Your task to perform on an android device: open app "AliExpress" (install if not already installed) and enter user name: "orangutan@inbox.com" and password: "Lyons" Image 0: 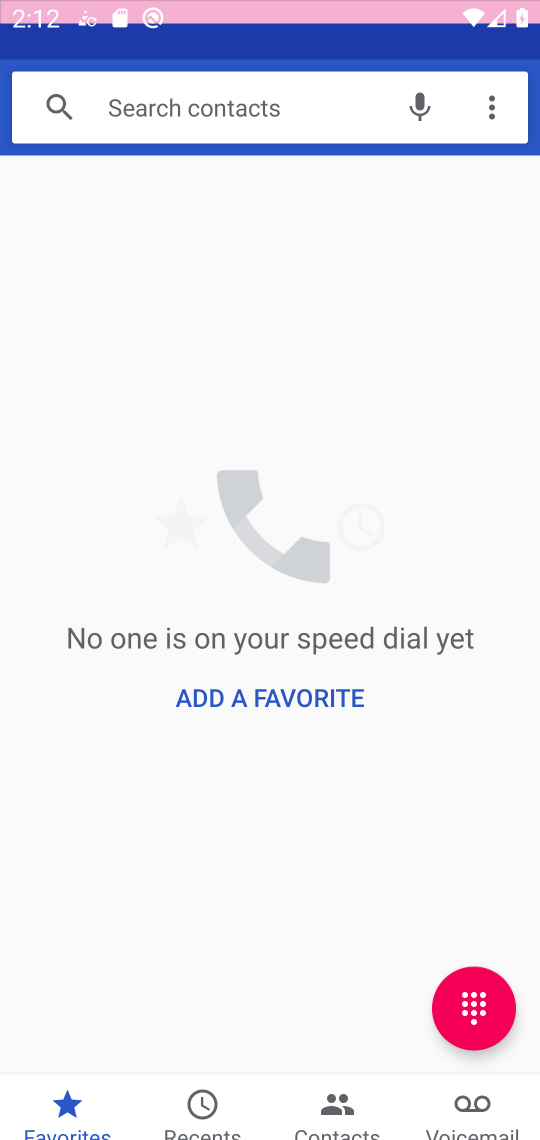
Step 0: press home button
Your task to perform on an android device: open app "AliExpress" (install if not already installed) and enter user name: "orangutan@inbox.com" and password: "Lyons" Image 1: 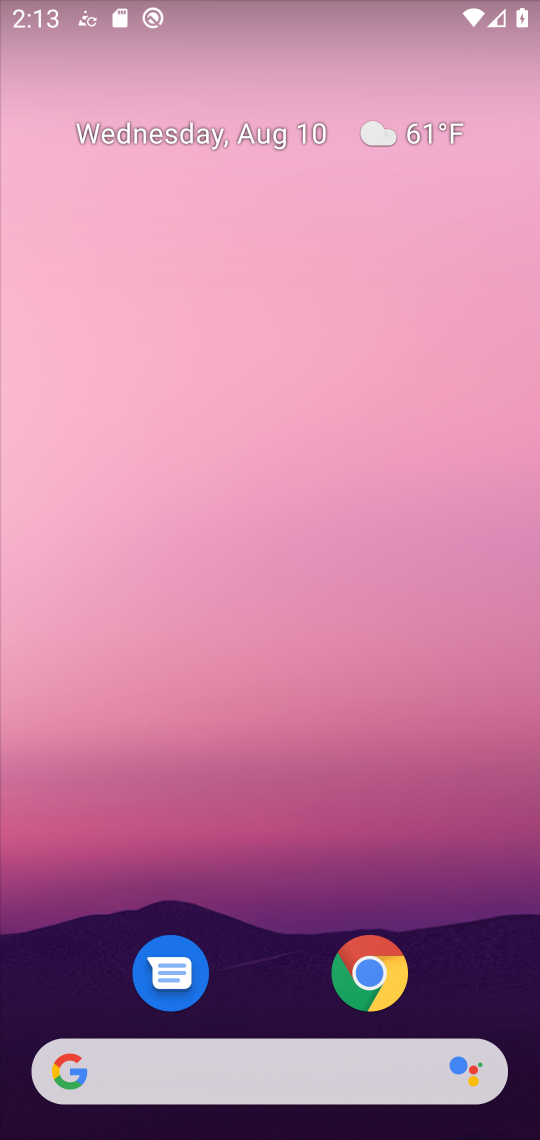
Step 1: drag from (333, 935) to (305, 444)
Your task to perform on an android device: open app "AliExpress" (install if not already installed) and enter user name: "orangutan@inbox.com" and password: "Lyons" Image 2: 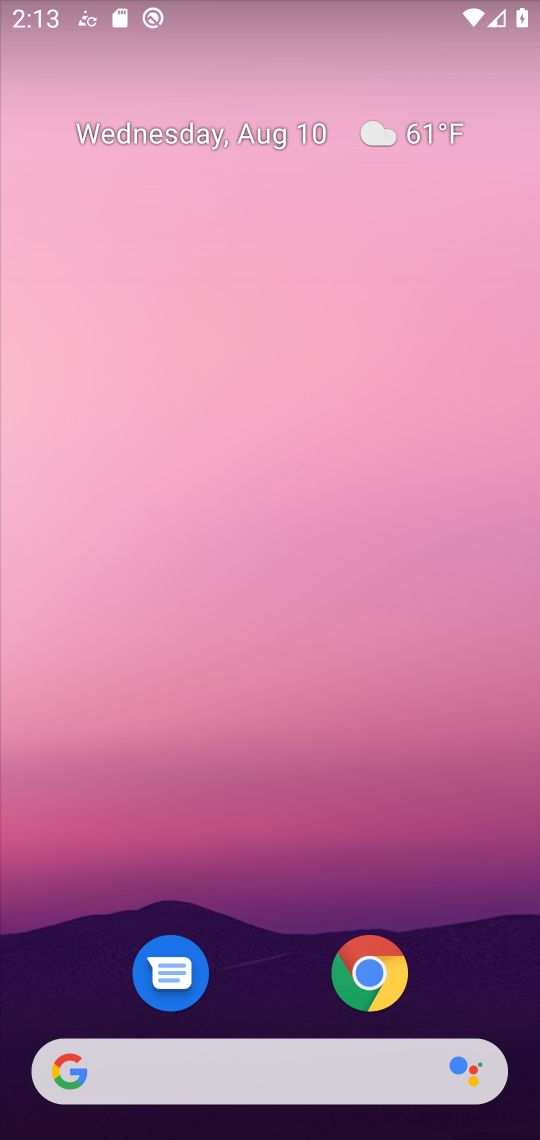
Step 2: drag from (168, 892) to (173, 174)
Your task to perform on an android device: open app "AliExpress" (install if not already installed) and enter user name: "orangutan@inbox.com" and password: "Lyons" Image 3: 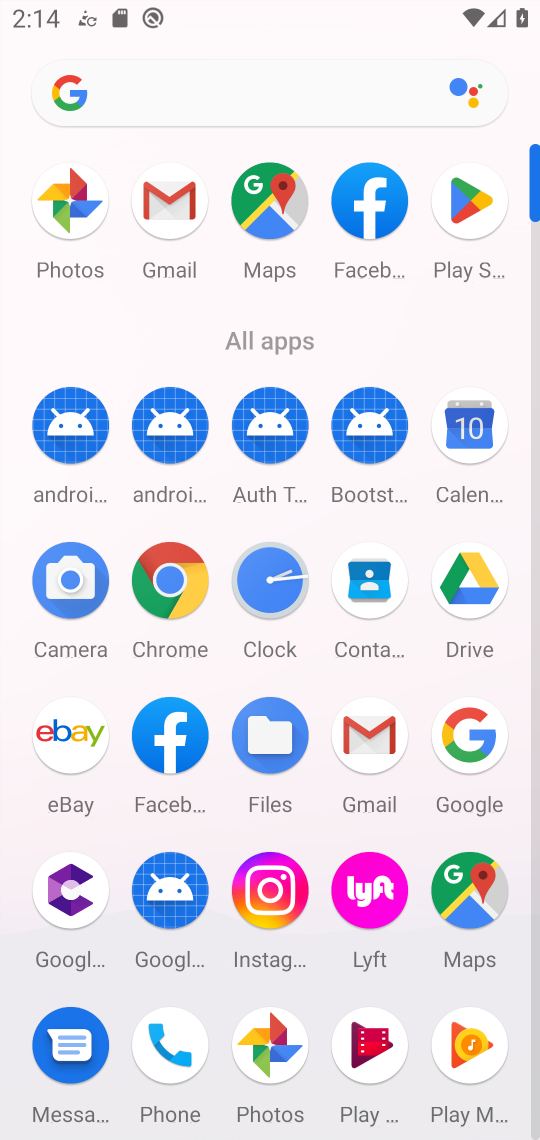
Step 3: click (474, 216)
Your task to perform on an android device: open app "AliExpress" (install if not already installed) and enter user name: "orangutan@inbox.com" and password: "Lyons" Image 4: 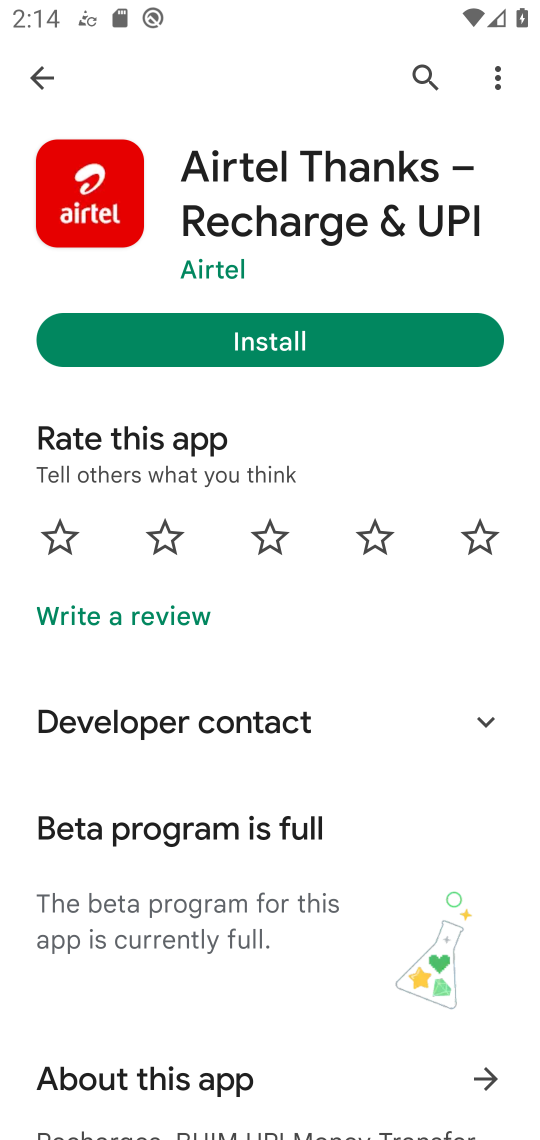
Step 4: click (40, 79)
Your task to perform on an android device: open app "AliExpress" (install if not already installed) and enter user name: "orangutan@inbox.com" and password: "Lyons" Image 5: 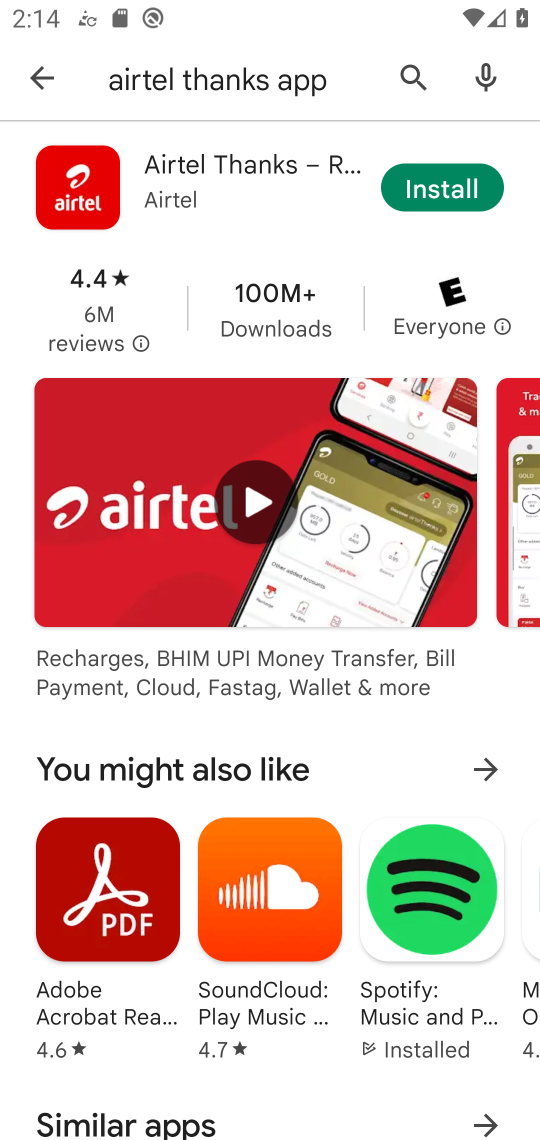
Step 5: click (40, 70)
Your task to perform on an android device: open app "AliExpress" (install if not already installed) and enter user name: "orangutan@inbox.com" and password: "Lyons" Image 6: 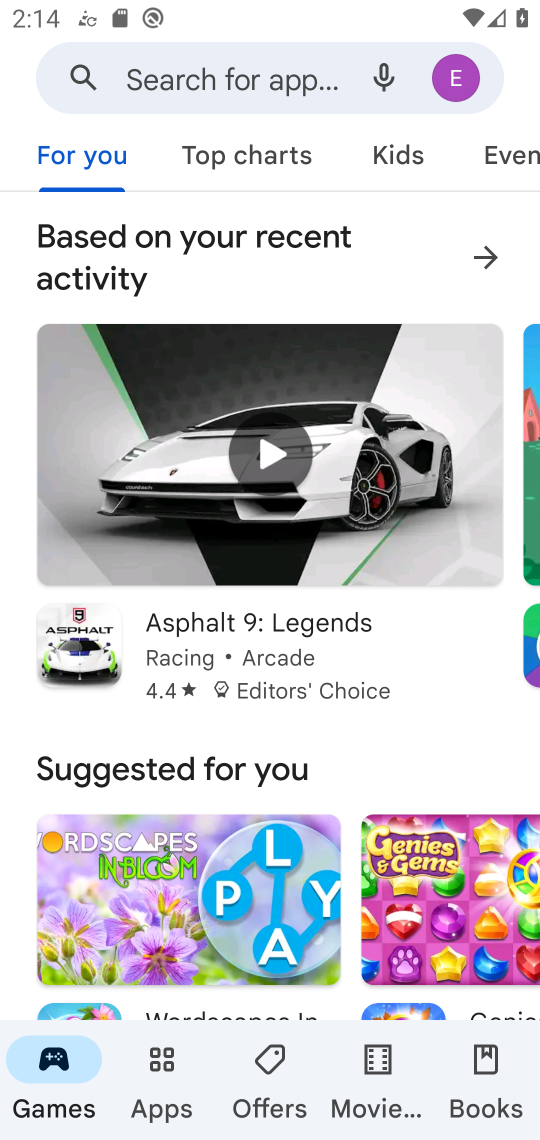
Step 6: click (206, 70)
Your task to perform on an android device: open app "AliExpress" (install if not already installed) and enter user name: "orangutan@inbox.com" and password: "Lyons" Image 7: 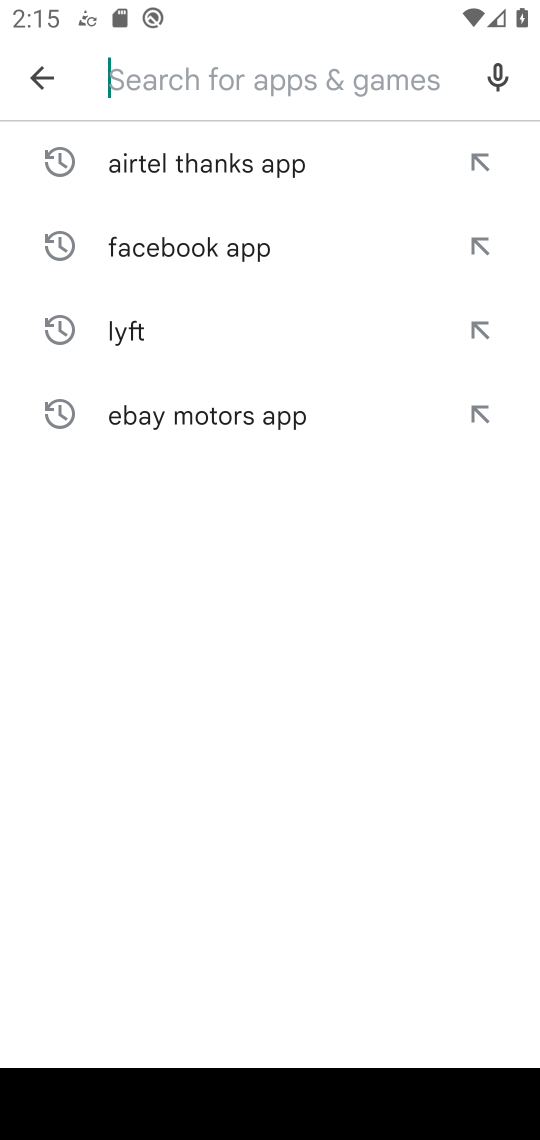
Step 7: type "ali"
Your task to perform on an android device: open app "AliExpress" (install if not already installed) and enter user name: "orangutan@inbox.com" and password: "Lyons" Image 8: 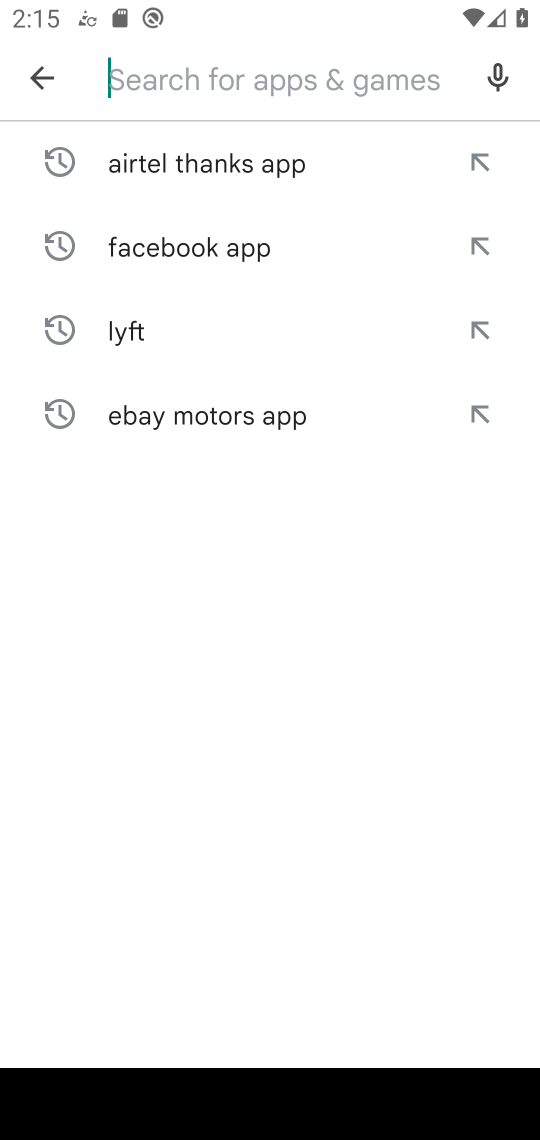
Step 8: click (233, 67)
Your task to perform on an android device: open app "AliExpress" (install if not already installed) and enter user name: "orangutan@inbox.com" and password: "Lyons" Image 9: 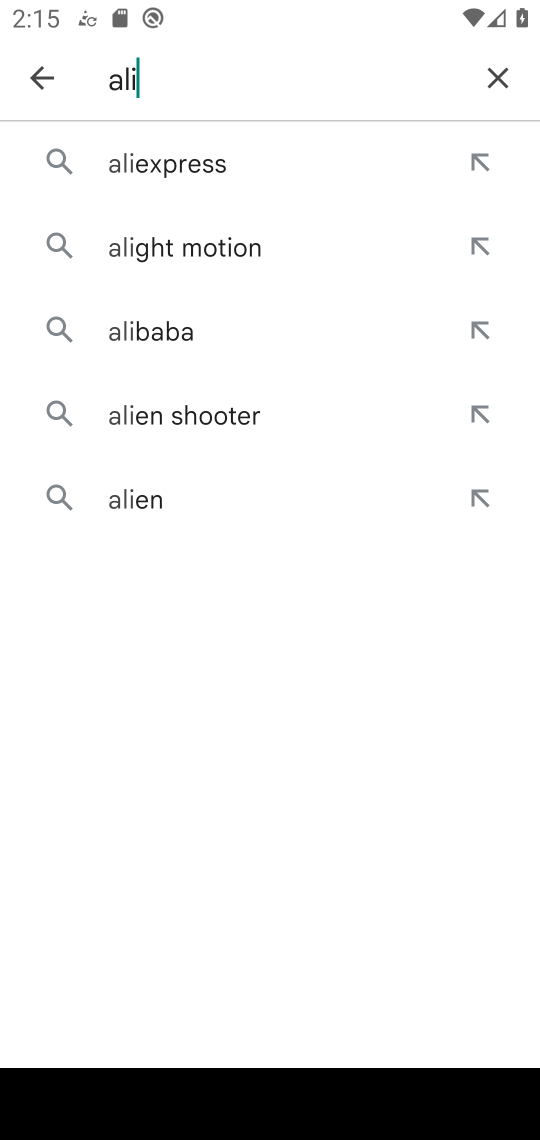
Step 9: click (151, 159)
Your task to perform on an android device: open app "AliExpress" (install if not already installed) and enter user name: "orangutan@inbox.com" and password: "Lyons" Image 10: 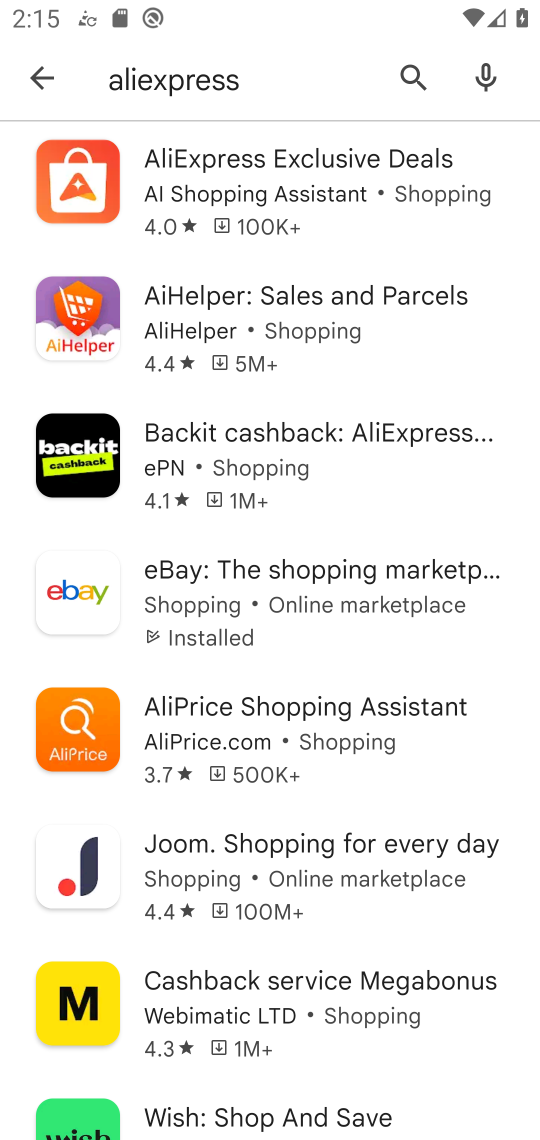
Step 10: click (209, 166)
Your task to perform on an android device: open app "AliExpress" (install if not already installed) and enter user name: "orangutan@inbox.com" and password: "Lyons" Image 11: 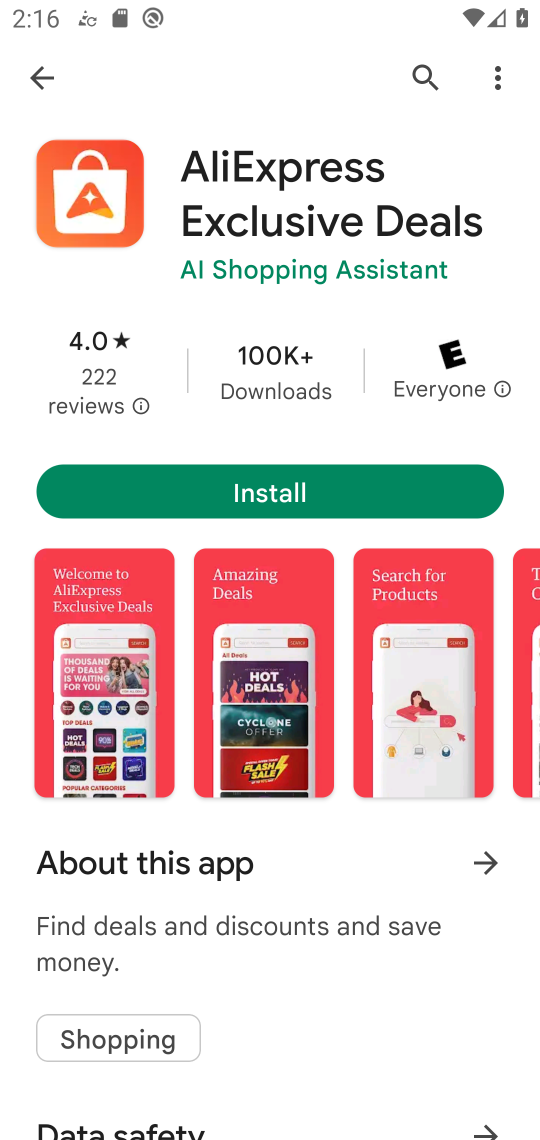
Step 11: click (243, 488)
Your task to perform on an android device: open app "AliExpress" (install if not already installed) and enter user name: "orangutan@inbox.com" and password: "Lyons" Image 12: 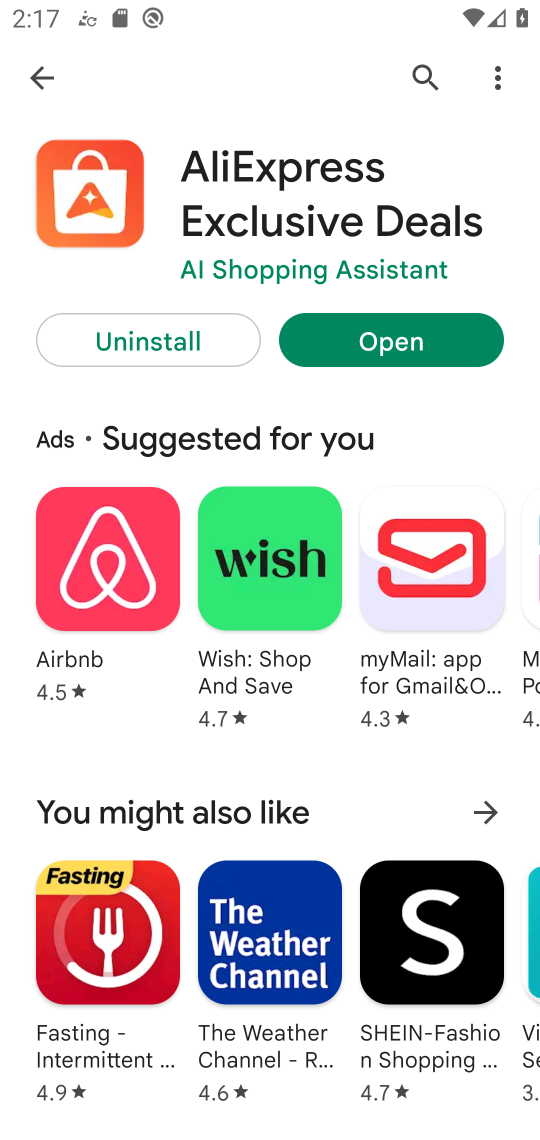
Step 12: click (365, 342)
Your task to perform on an android device: open app "AliExpress" (install if not already installed) and enter user name: "orangutan@inbox.com" and password: "Lyons" Image 13: 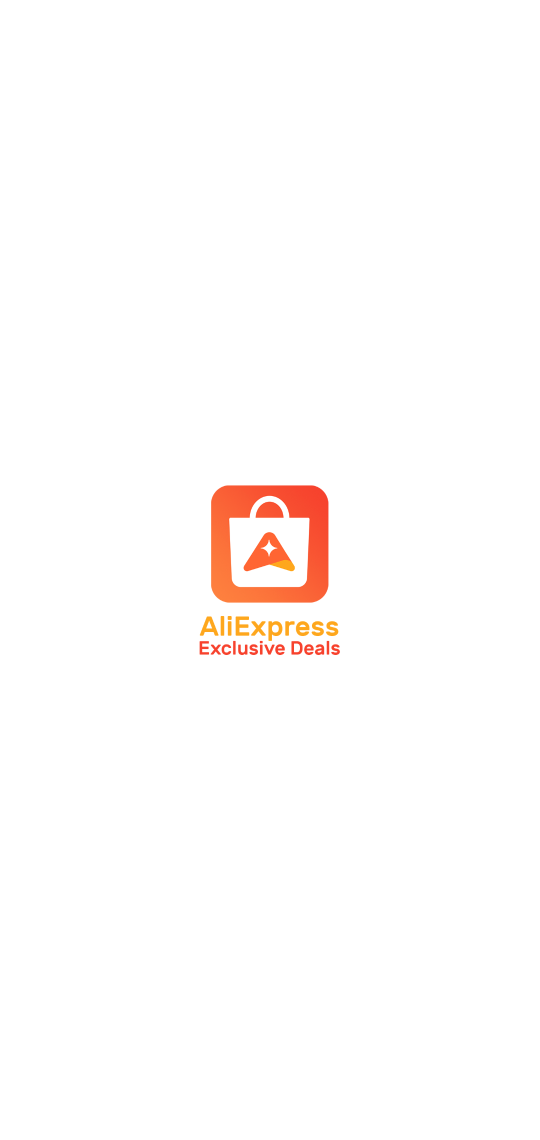
Step 13: task complete